Your task to perform on an android device: Is it going to rain today? Image 0: 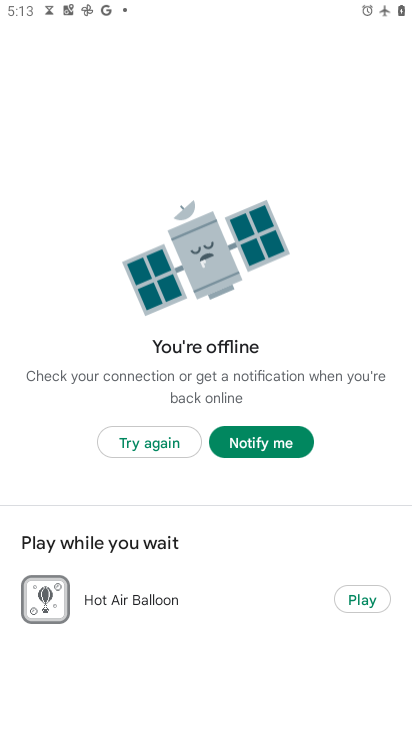
Step 0: press home button
Your task to perform on an android device: Is it going to rain today? Image 1: 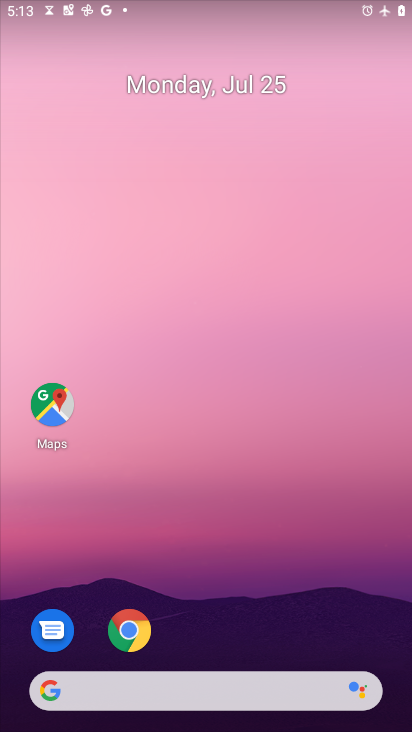
Step 1: drag from (197, 695) to (274, 16)
Your task to perform on an android device: Is it going to rain today? Image 2: 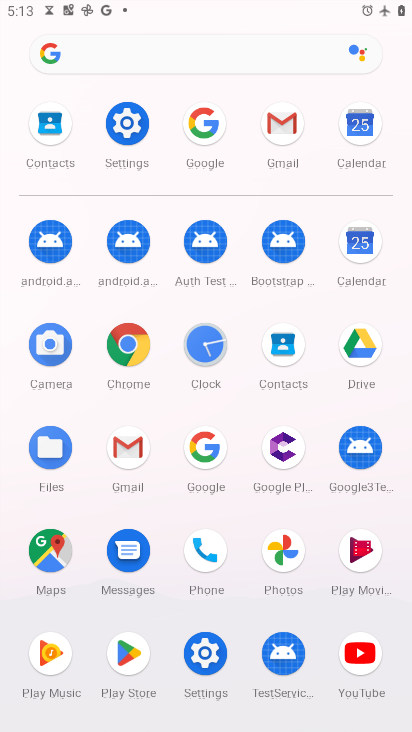
Step 2: click (200, 122)
Your task to perform on an android device: Is it going to rain today? Image 3: 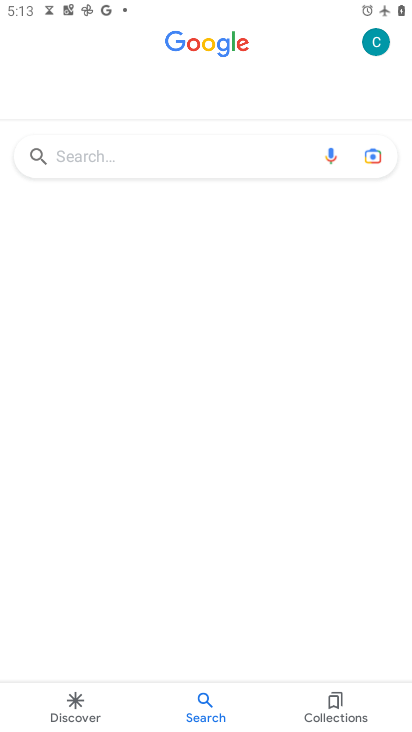
Step 3: click (186, 148)
Your task to perform on an android device: Is it going to rain today? Image 4: 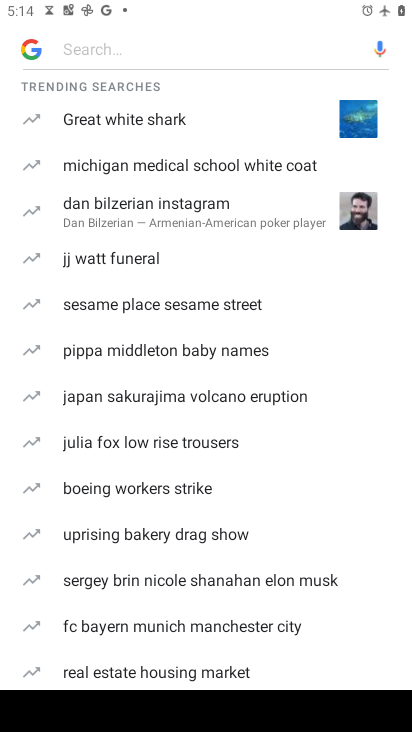
Step 4: type "Is it going to rain today"
Your task to perform on an android device: Is it going to rain today? Image 5: 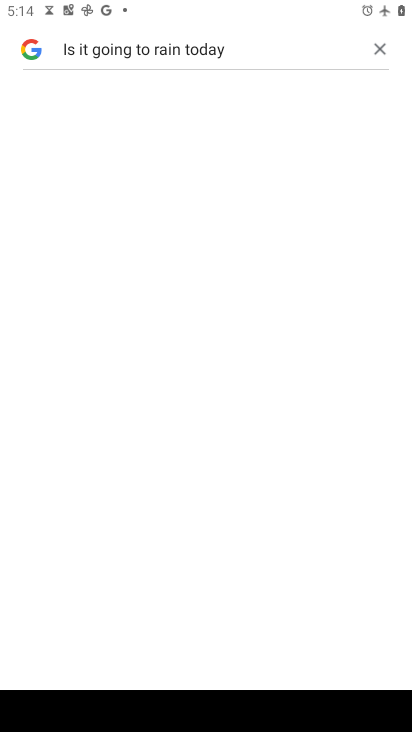
Step 5: task complete